Your task to perform on an android device: turn on the 12-hour format for clock Image 0: 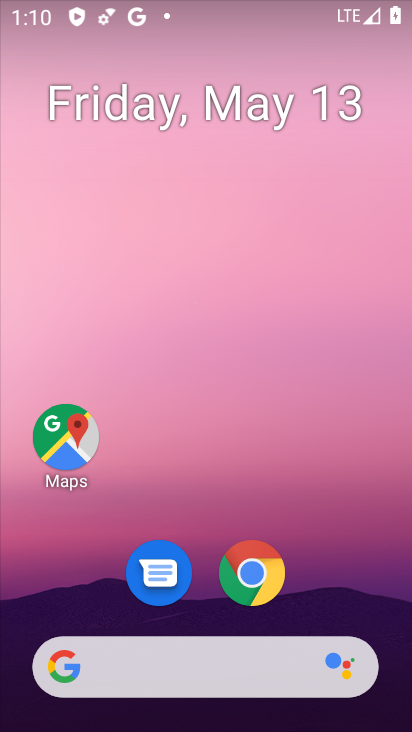
Step 0: drag from (218, 630) to (219, 255)
Your task to perform on an android device: turn on the 12-hour format for clock Image 1: 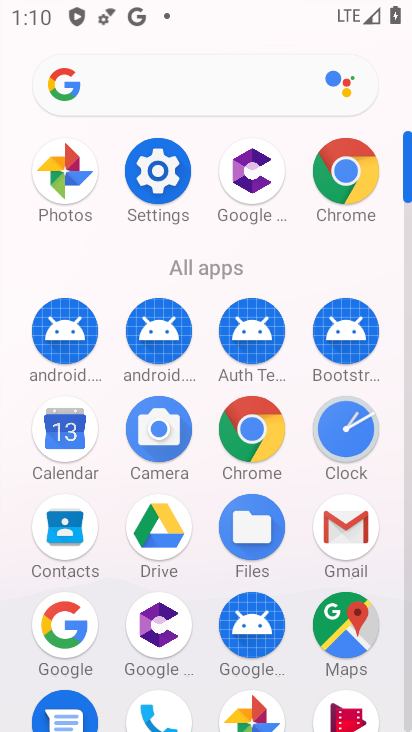
Step 1: click (151, 213)
Your task to perform on an android device: turn on the 12-hour format for clock Image 2: 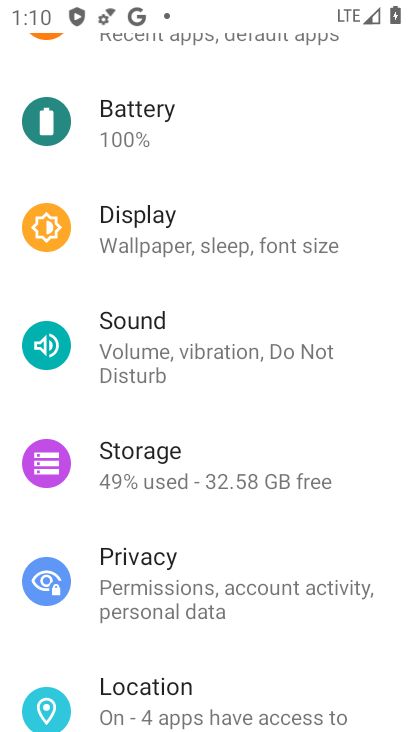
Step 2: press home button
Your task to perform on an android device: turn on the 12-hour format for clock Image 3: 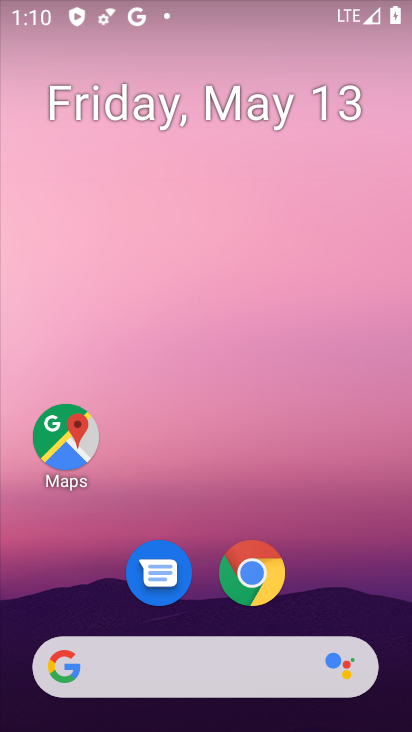
Step 3: drag from (229, 577) to (231, 464)
Your task to perform on an android device: turn on the 12-hour format for clock Image 4: 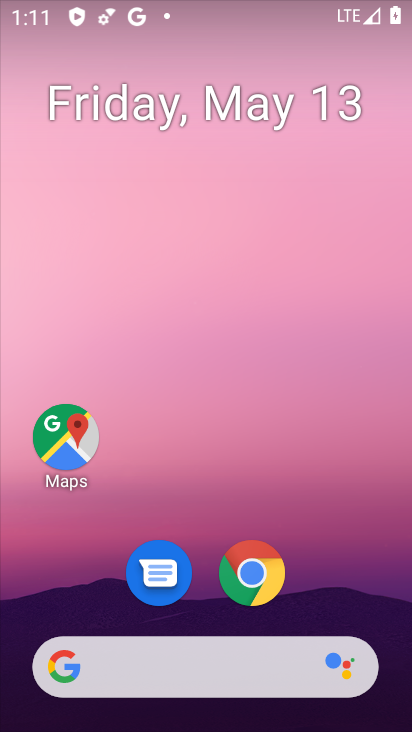
Step 4: drag from (199, 627) to (215, 475)
Your task to perform on an android device: turn on the 12-hour format for clock Image 5: 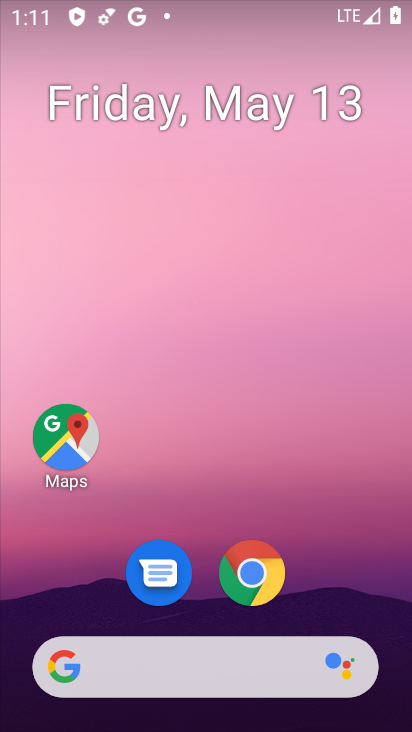
Step 5: drag from (245, 528) to (254, 190)
Your task to perform on an android device: turn on the 12-hour format for clock Image 6: 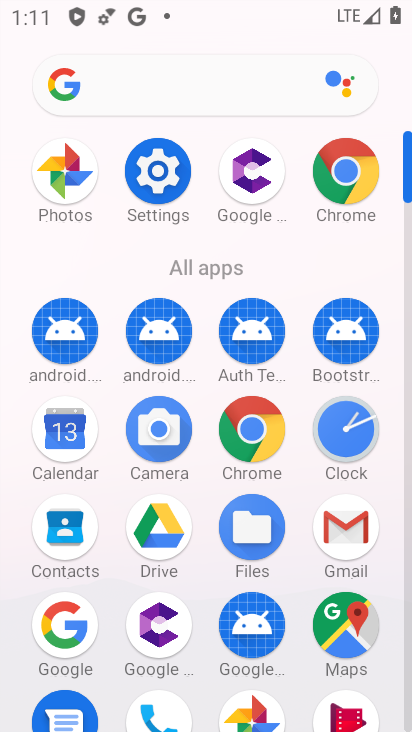
Step 6: click (354, 442)
Your task to perform on an android device: turn on the 12-hour format for clock Image 7: 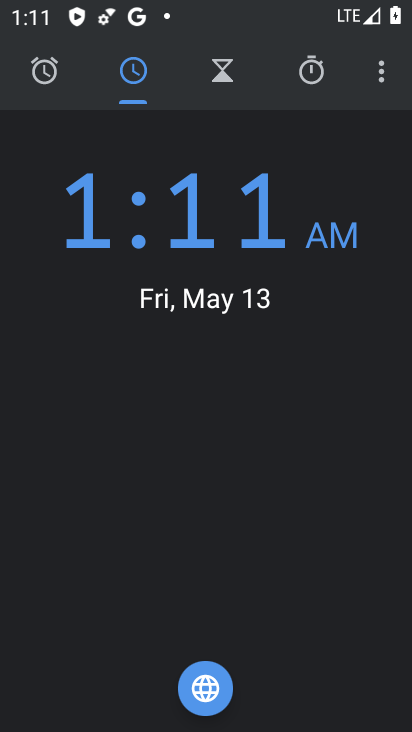
Step 7: click (380, 80)
Your task to perform on an android device: turn on the 12-hour format for clock Image 8: 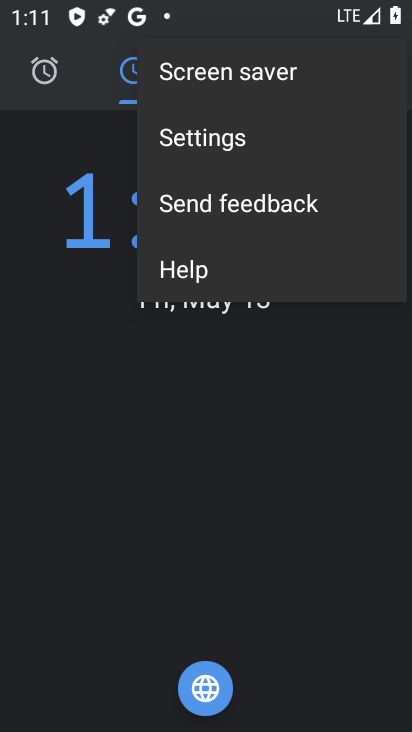
Step 8: click (196, 142)
Your task to perform on an android device: turn on the 12-hour format for clock Image 9: 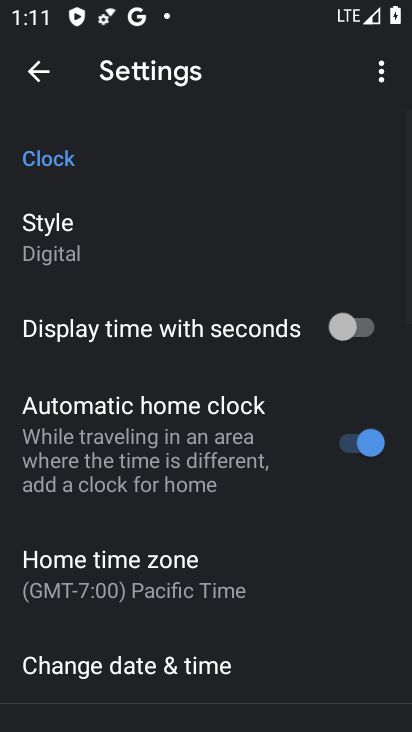
Step 9: click (171, 664)
Your task to perform on an android device: turn on the 12-hour format for clock Image 10: 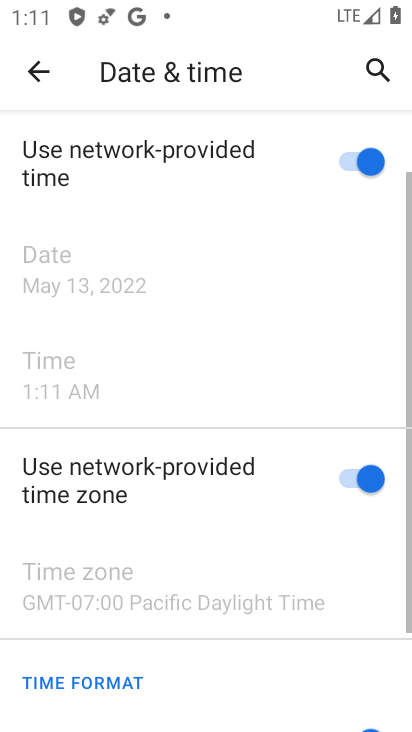
Step 10: task complete